Your task to perform on an android device: Open settings Image 0: 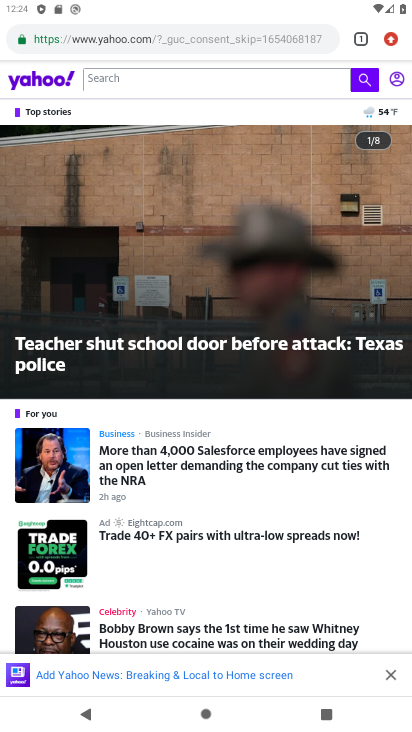
Step 0: press home button
Your task to perform on an android device: Open settings Image 1: 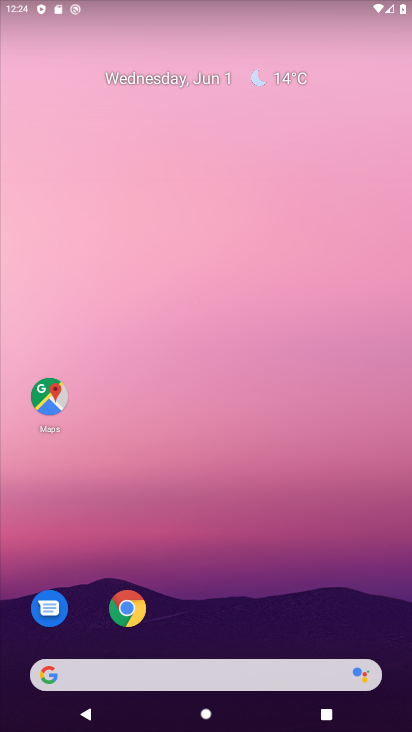
Step 1: drag from (324, 266) to (345, 124)
Your task to perform on an android device: Open settings Image 2: 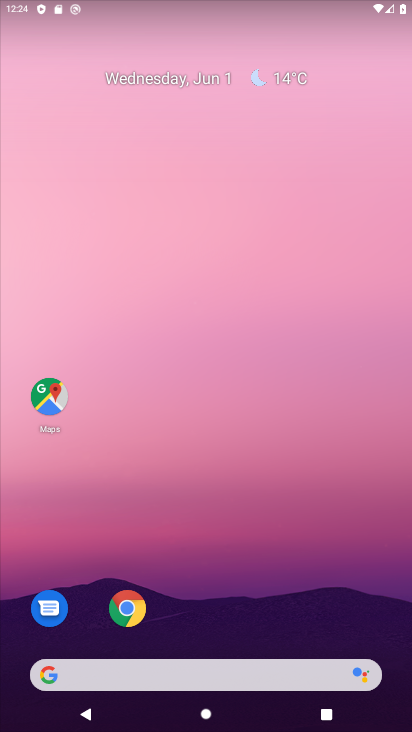
Step 2: drag from (242, 644) to (281, 141)
Your task to perform on an android device: Open settings Image 3: 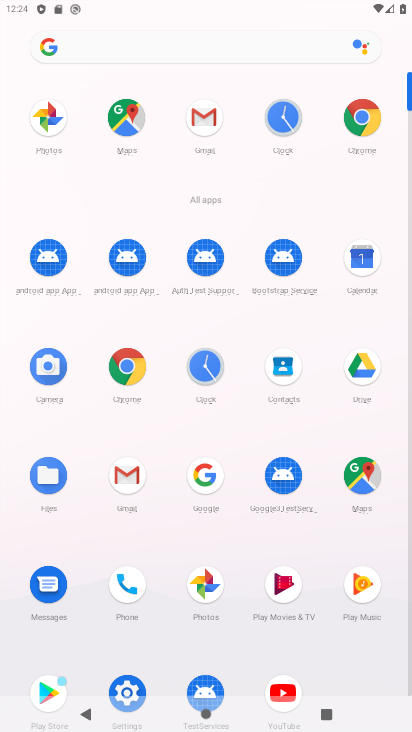
Step 3: click (136, 682)
Your task to perform on an android device: Open settings Image 4: 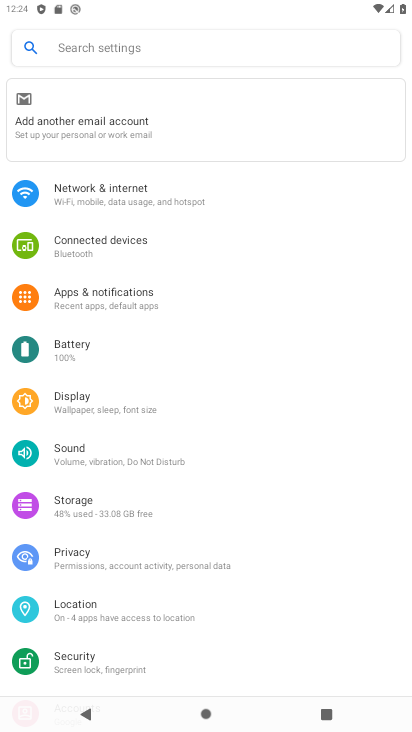
Step 4: task complete